Your task to perform on an android device: Clear the cart on bestbuy.com. Search for "razer kraken" on bestbuy.com, select the first entry, add it to the cart, then select checkout. Image 0: 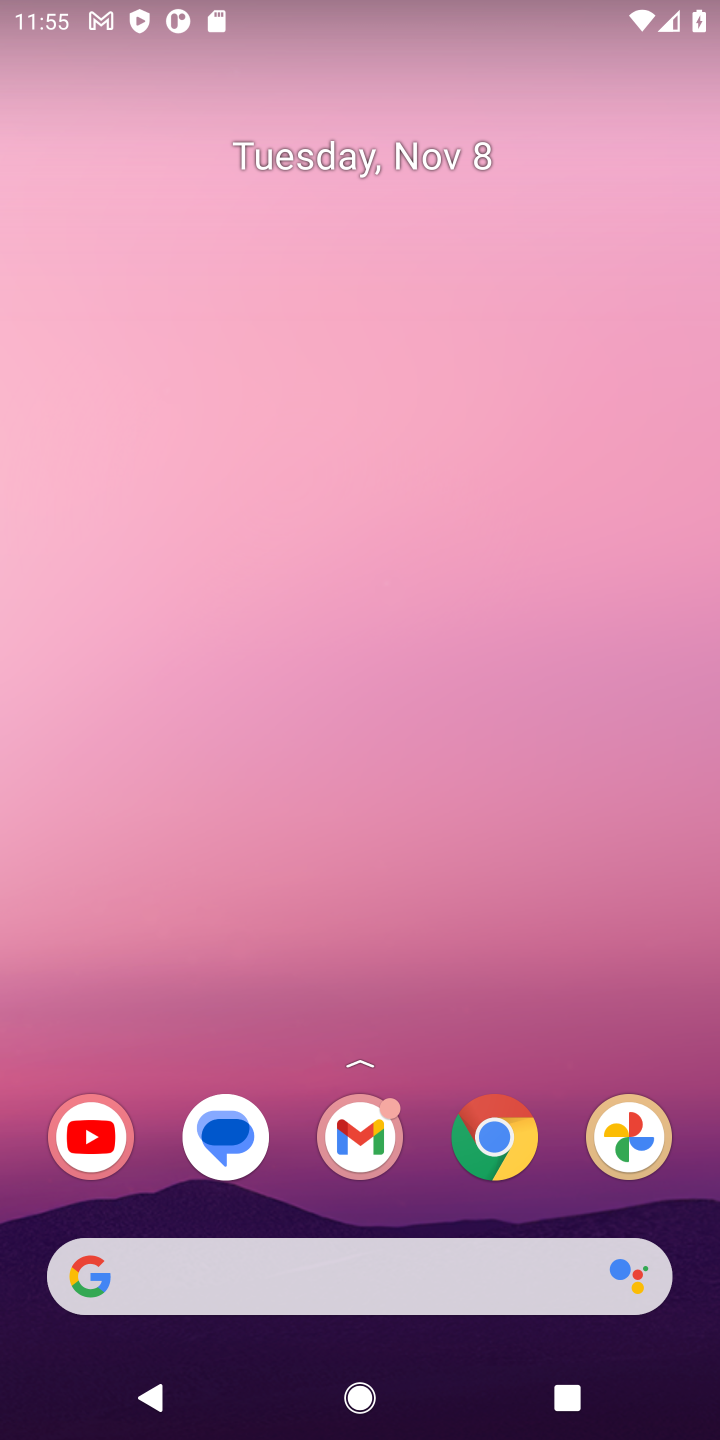
Step 0: click (494, 1139)
Your task to perform on an android device: Clear the cart on bestbuy.com. Search for "razer kraken" on bestbuy.com, select the first entry, add it to the cart, then select checkout. Image 1: 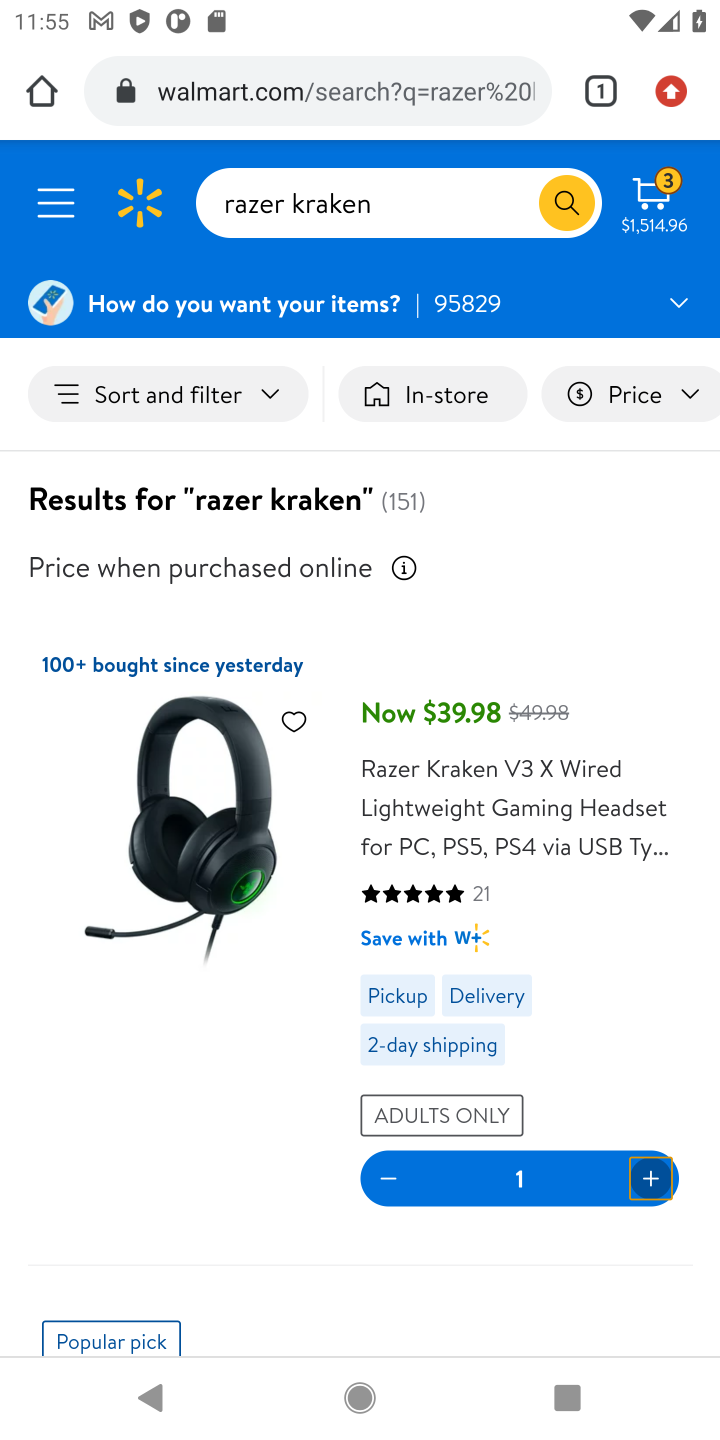
Step 1: click (393, 86)
Your task to perform on an android device: Clear the cart on bestbuy.com. Search for "razer kraken" on bestbuy.com, select the first entry, add it to the cart, then select checkout. Image 2: 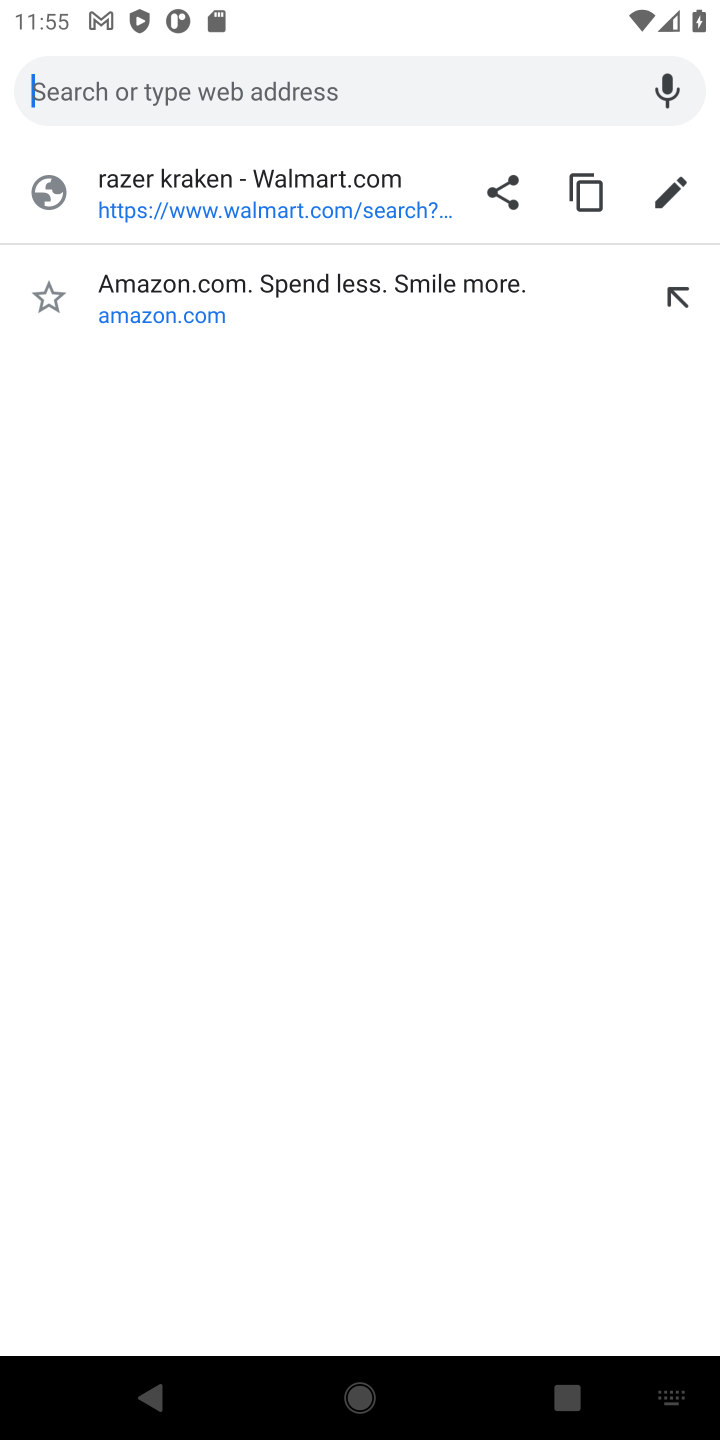
Step 2: type "bestbuy.com"
Your task to perform on an android device: Clear the cart on bestbuy.com. Search for "razer kraken" on bestbuy.com, select the first entry, add it to the cart, then select checkout. Image 3: 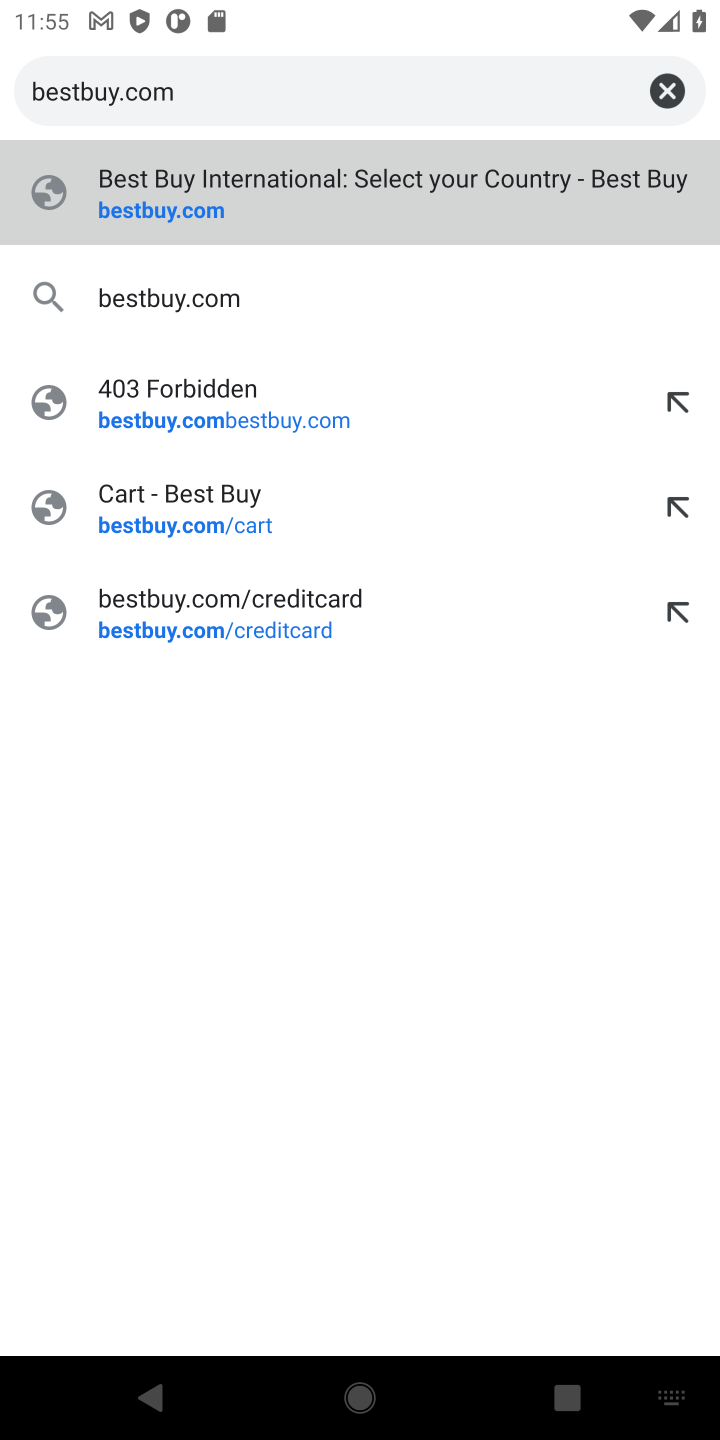
Step 3: click (220, 311)
Your task to perform on an android device: Clear the cart on bestbuy.com. Search for "razer kraken" on bestbuy.com, select the first entry, add it to the cart, then select checkout. Image 4: 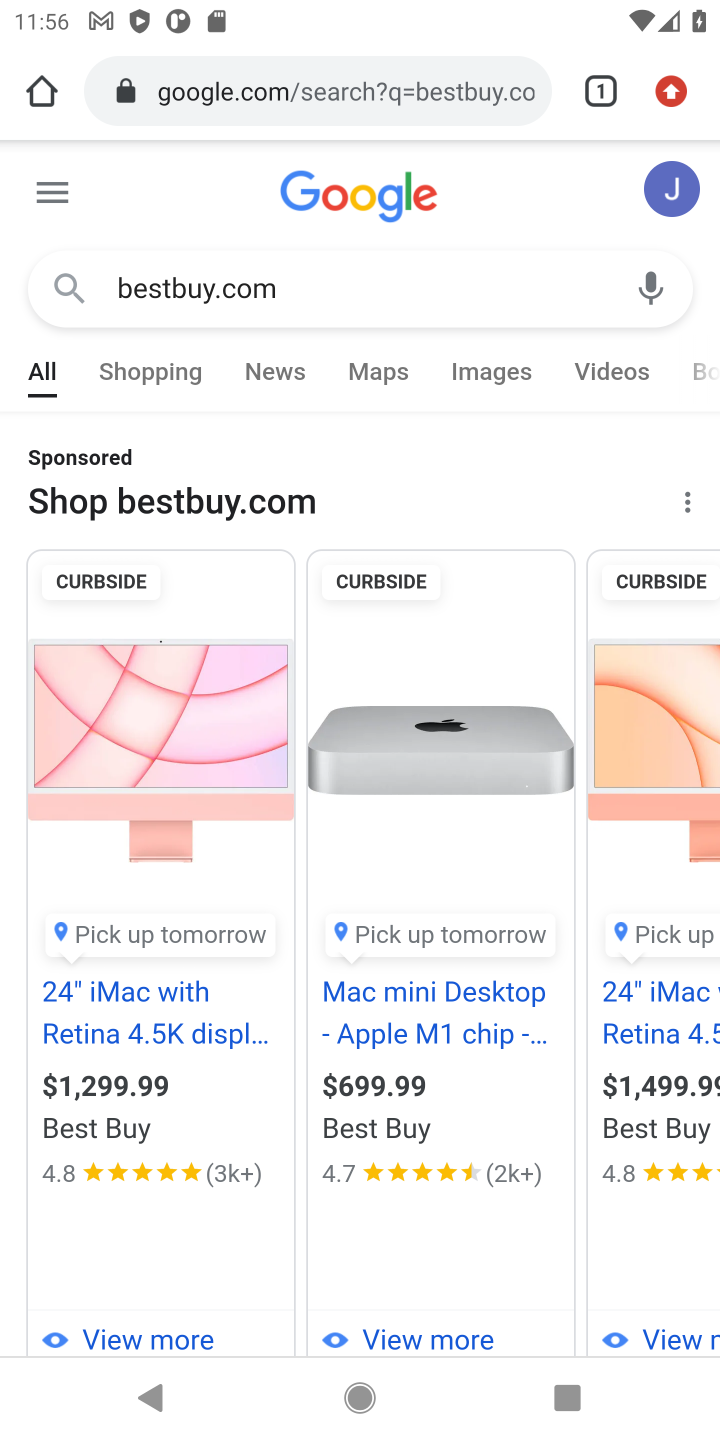
Step 4: drag from (412, 1138) to (527, 311)
Your task to perform on an android device: Clear the cart on bestbuy.com. Search for "razer kraken" on bestbuy.com, select the first entry, add it to the cart, then select checkout. Image 5: 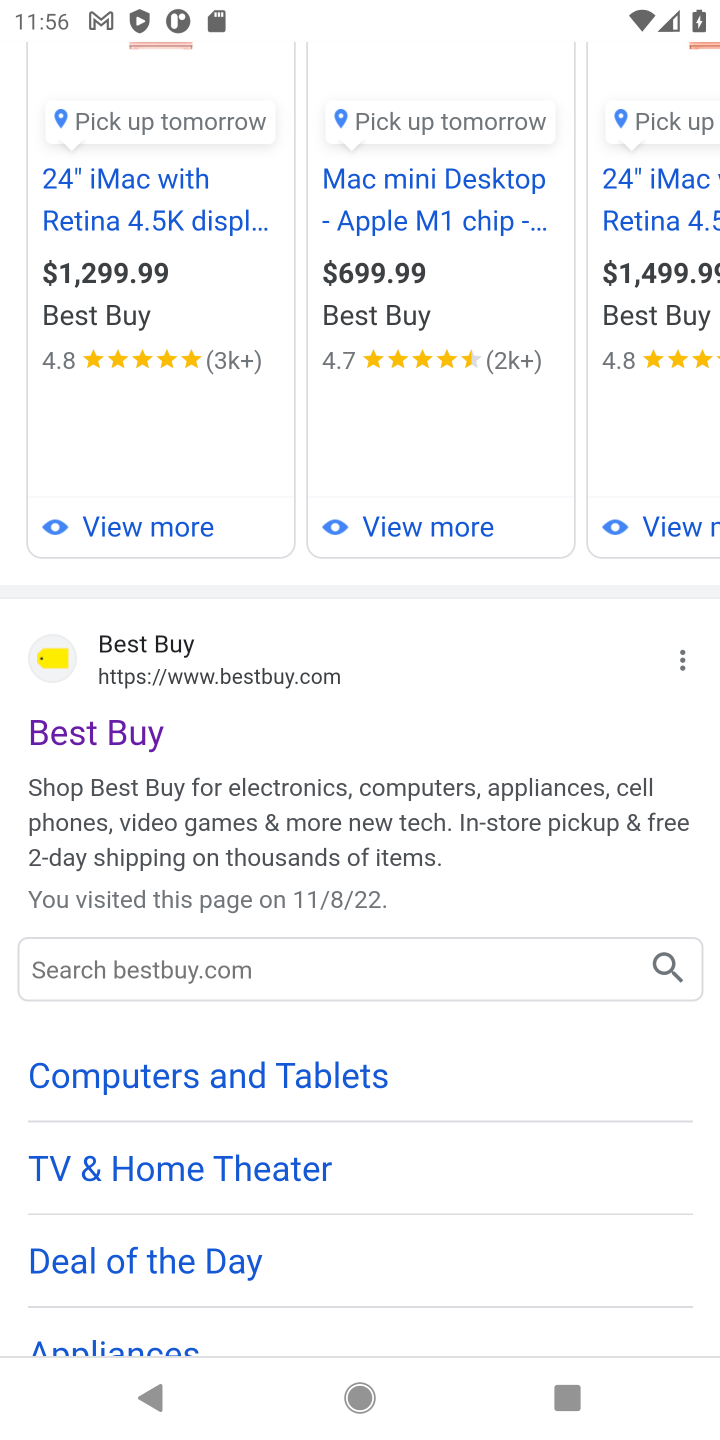
Step 5: click (210, 691)
Your task to perform on an android device: Clear the cart on bestbuy.com. Search for "razer kraken" on bestbuy.com, select the first entry, add it to the cart, then select checkout. Image 6: 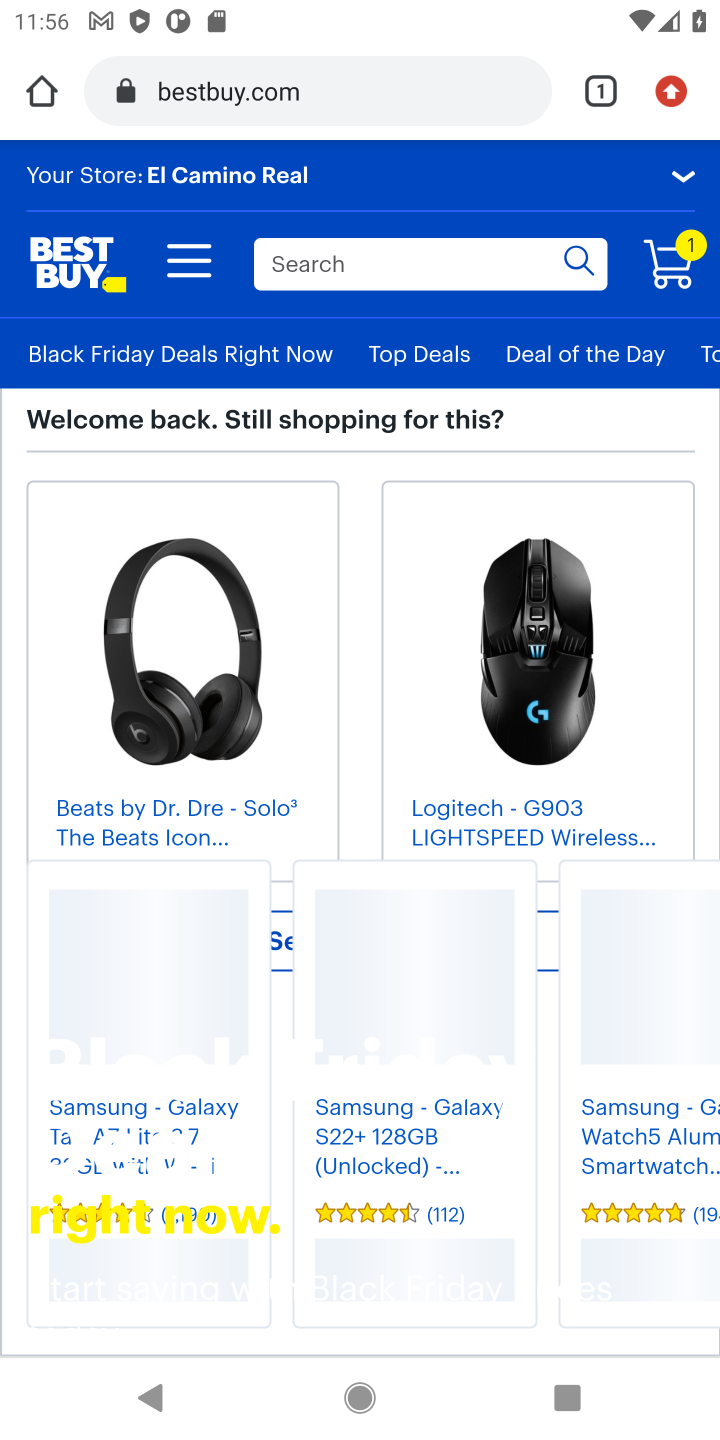
Step 6: click (691, 255)
Your task to perform on an android device: Clear the cart on bestbuy.com. Search for "razer kraken" on bestbuy.com, select the first entry, add it to the cart, then select checkout. Image 7: 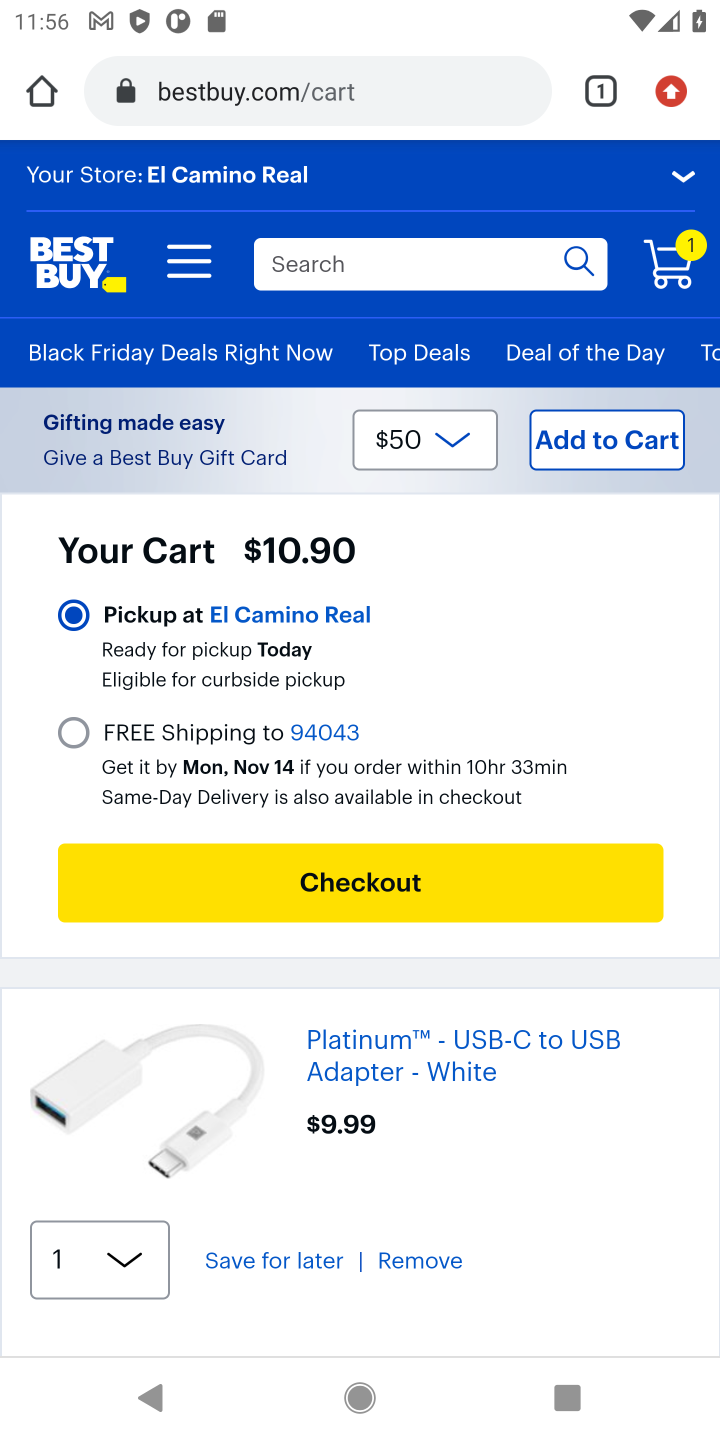
Step 7: click (398, 1261)
Your task to perform on an android device: Clear the cart on bestbuy.com. Search for "razer kraken" on bestbuy.com, select the first entry, add it to the cart, then select checkout. Image 8: 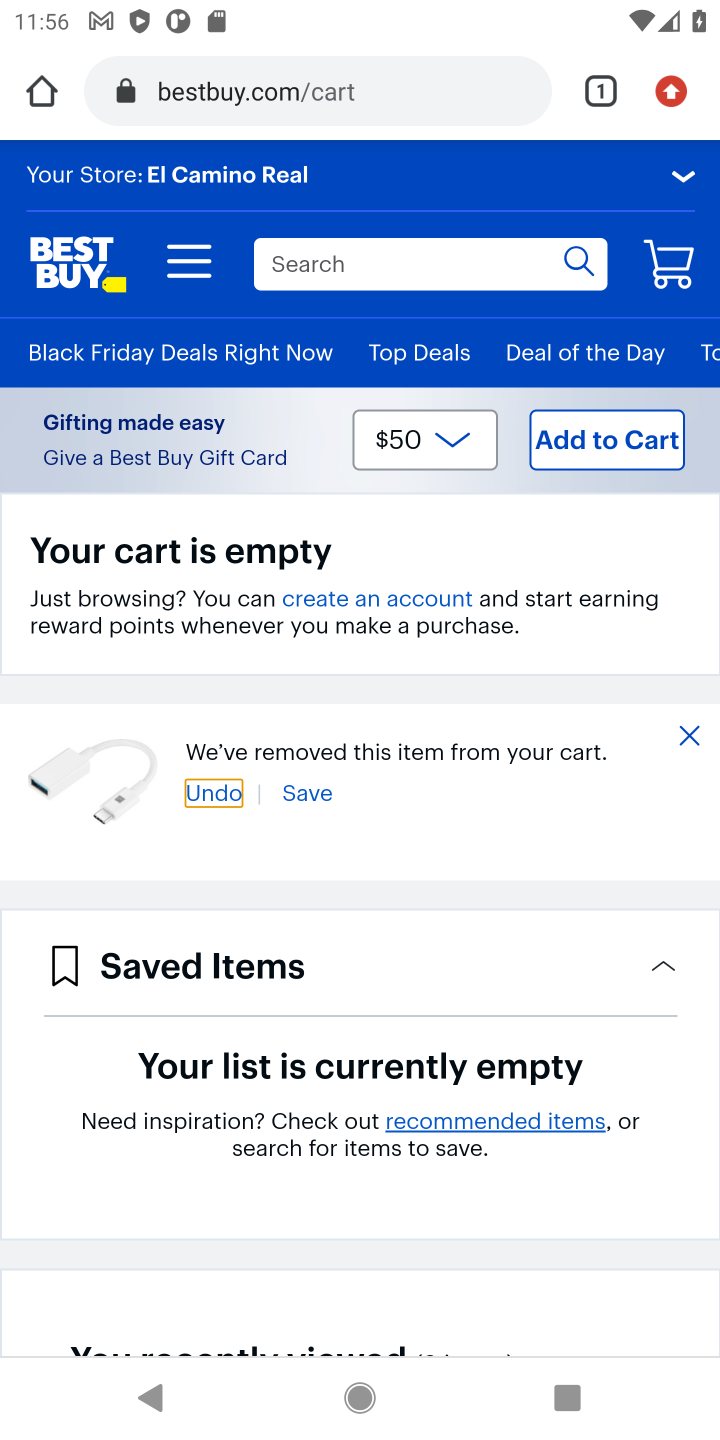
Step 8: click (432, 264)
Your task to perform on an android device: Clear the cart on bestbuy.com. Search for "razer kraken" on bestbuy.com, select the first entry, add it to the cart, then select checkout. Image 9: 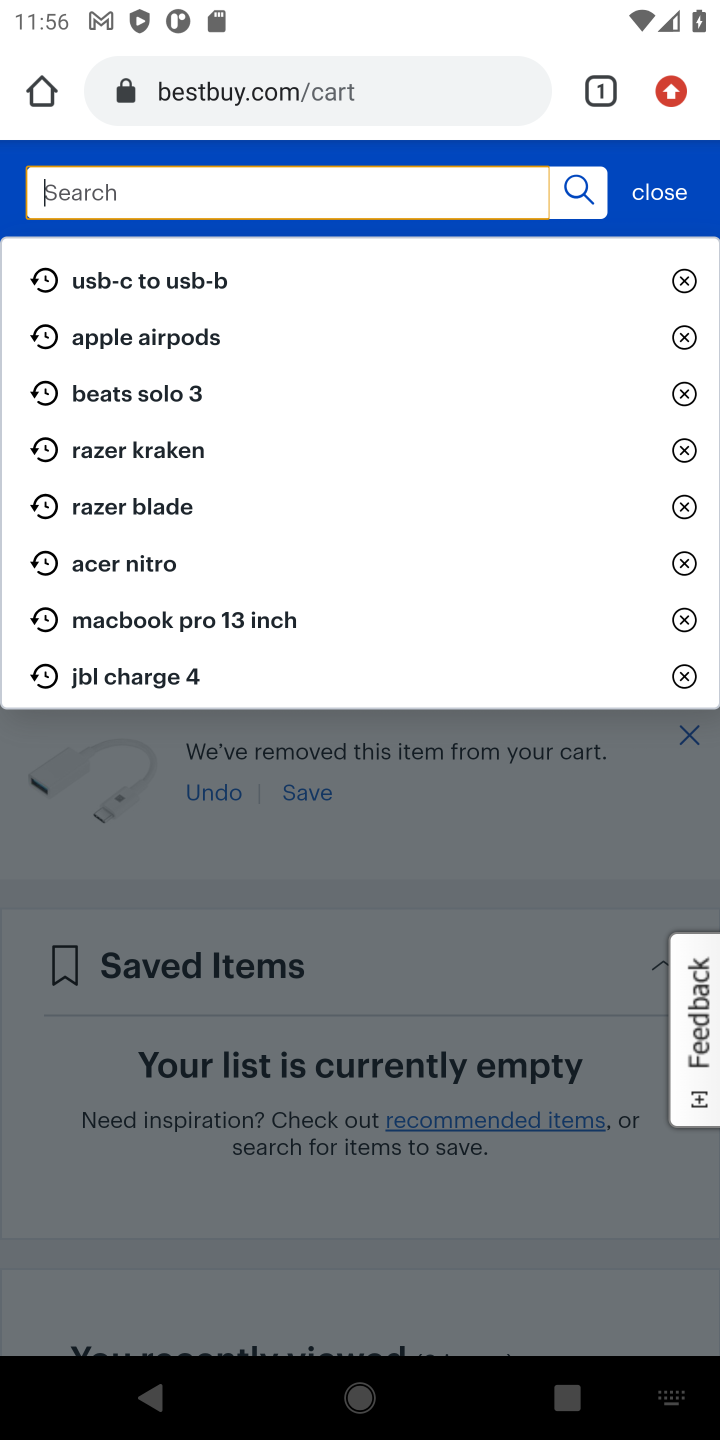
Step 9: type "razer krakan"
Your task to perform on an android device: Clear the cart on bestbuy.com. Search for "razer kraken" on bestbuy.com, select the first entry, add it to the cart, then select checkout. Image 10: 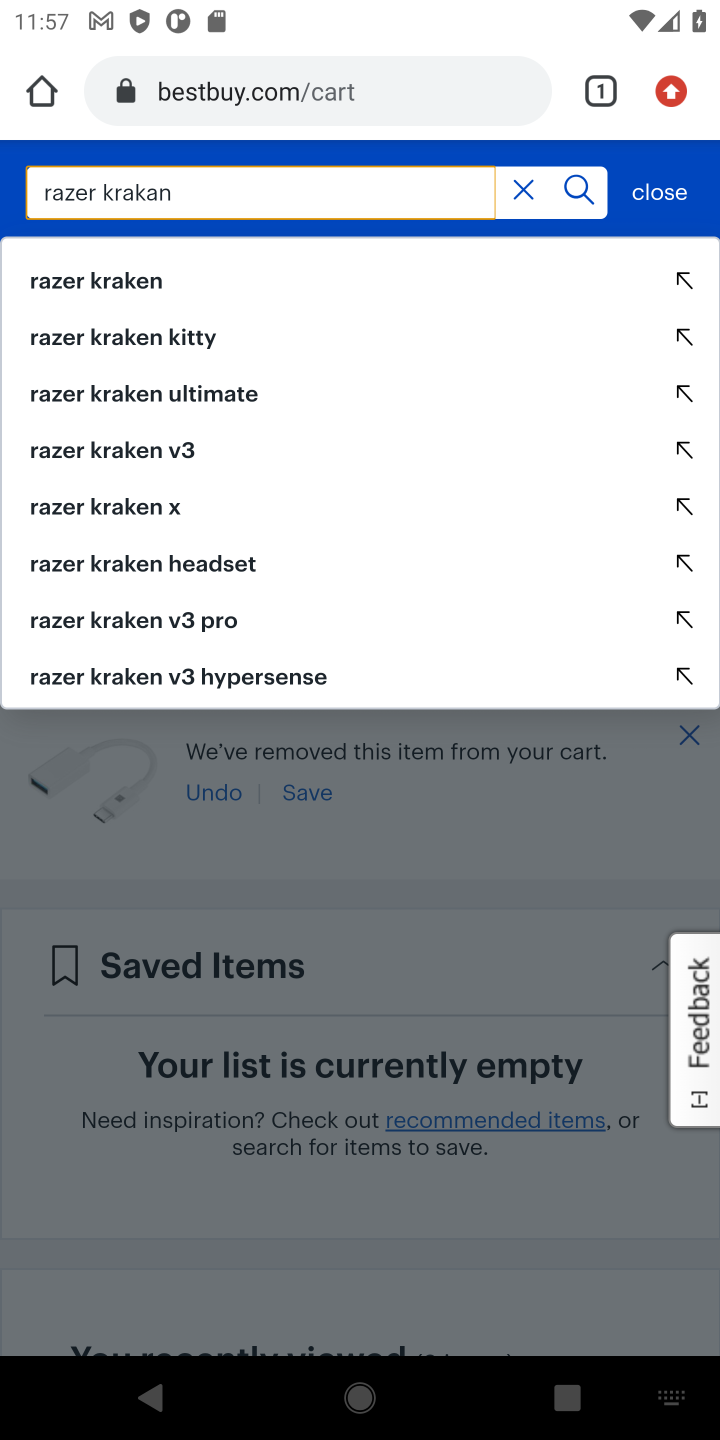
Step 10: click (129, 281)
Your task to perform on an android device: Clear the cart on bestbuy.com. Search for "razer kraken" on bestbuy.com, select the first entry, add it to the cart, then select checkout. Image 11: 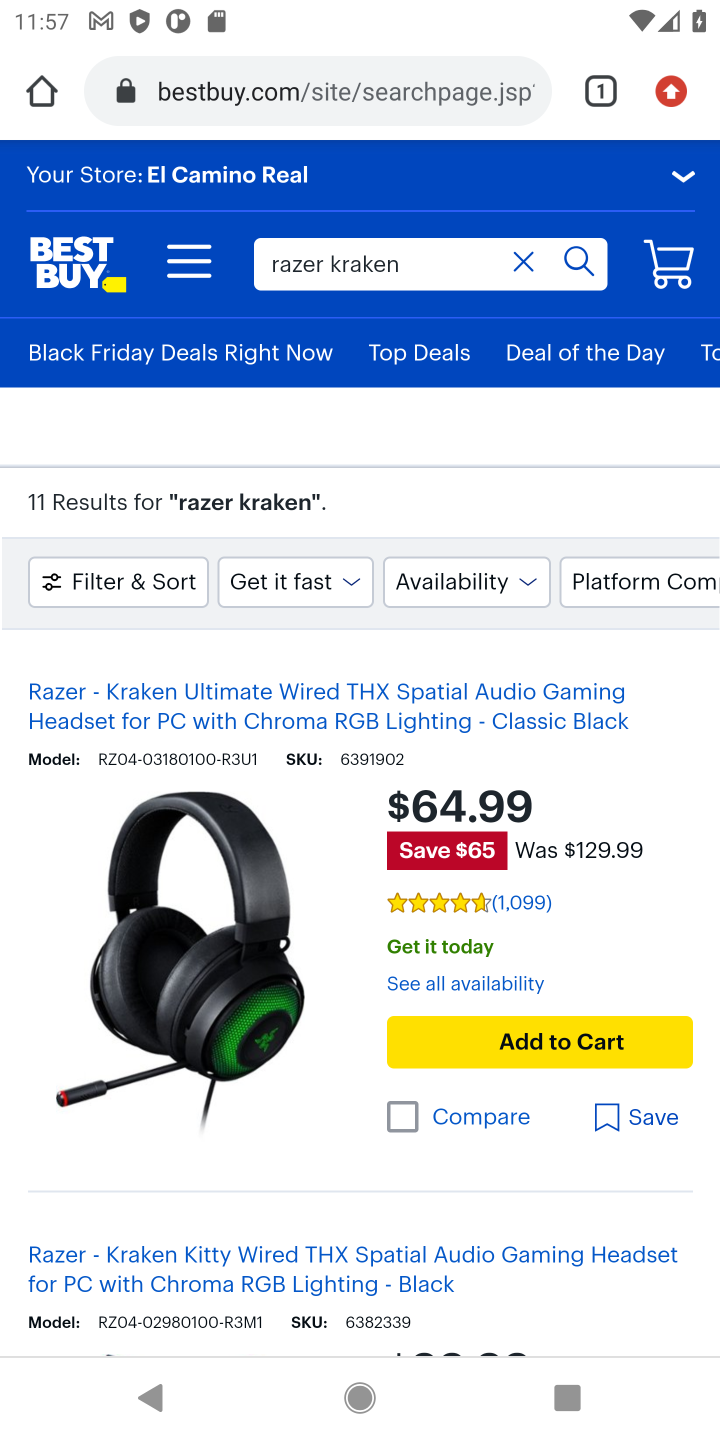
Step 11: click (546, 1049)
Your task to perform on an android device: Clear the cart on bestbuy.com. Search for "razer kraken" on bestbuy.com, select the first entry, add it to the cart, then select checkout. Image 12: 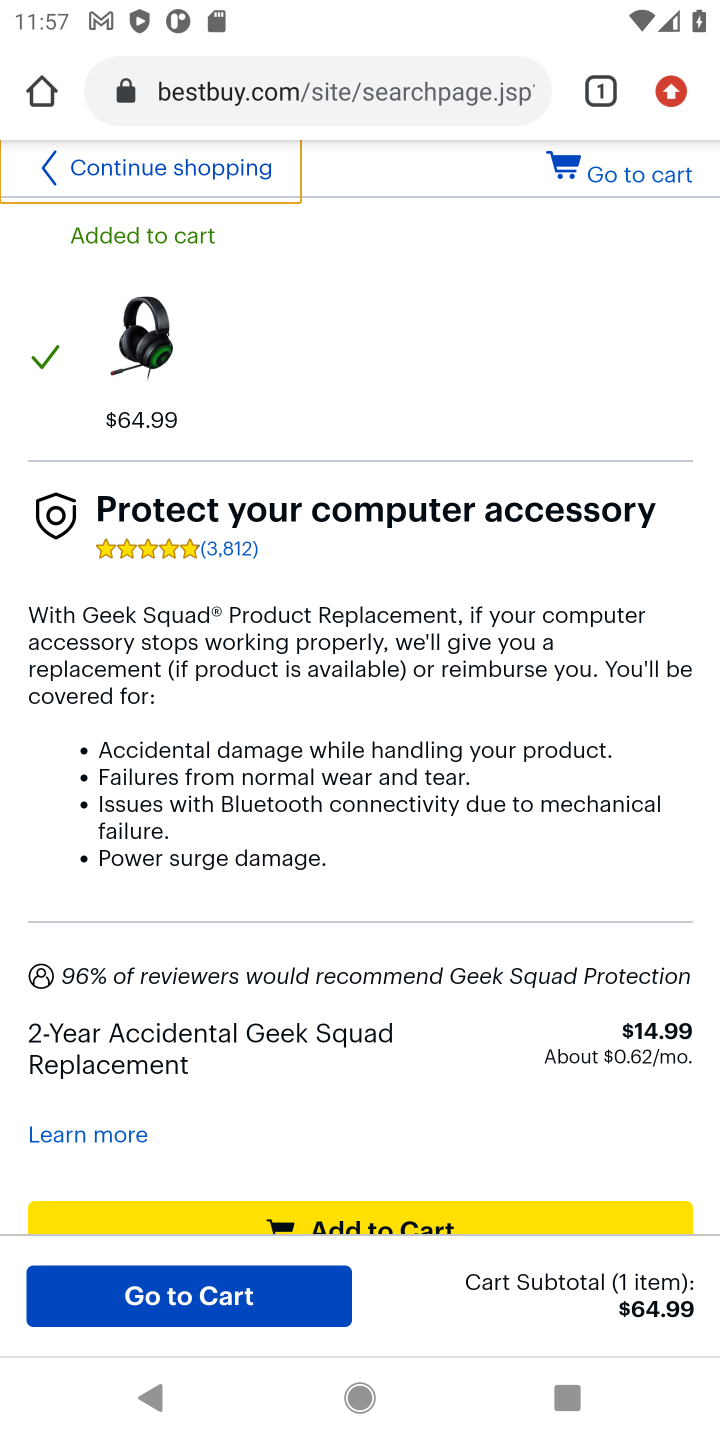
Step 12: click (156, 1293)
Your task to perform on an android device: Clear the cart on bestbuy.com. Search for "razer kraken" on bestbuy.com, select the first entry, add it to the cart, then select checkout. Image 13: 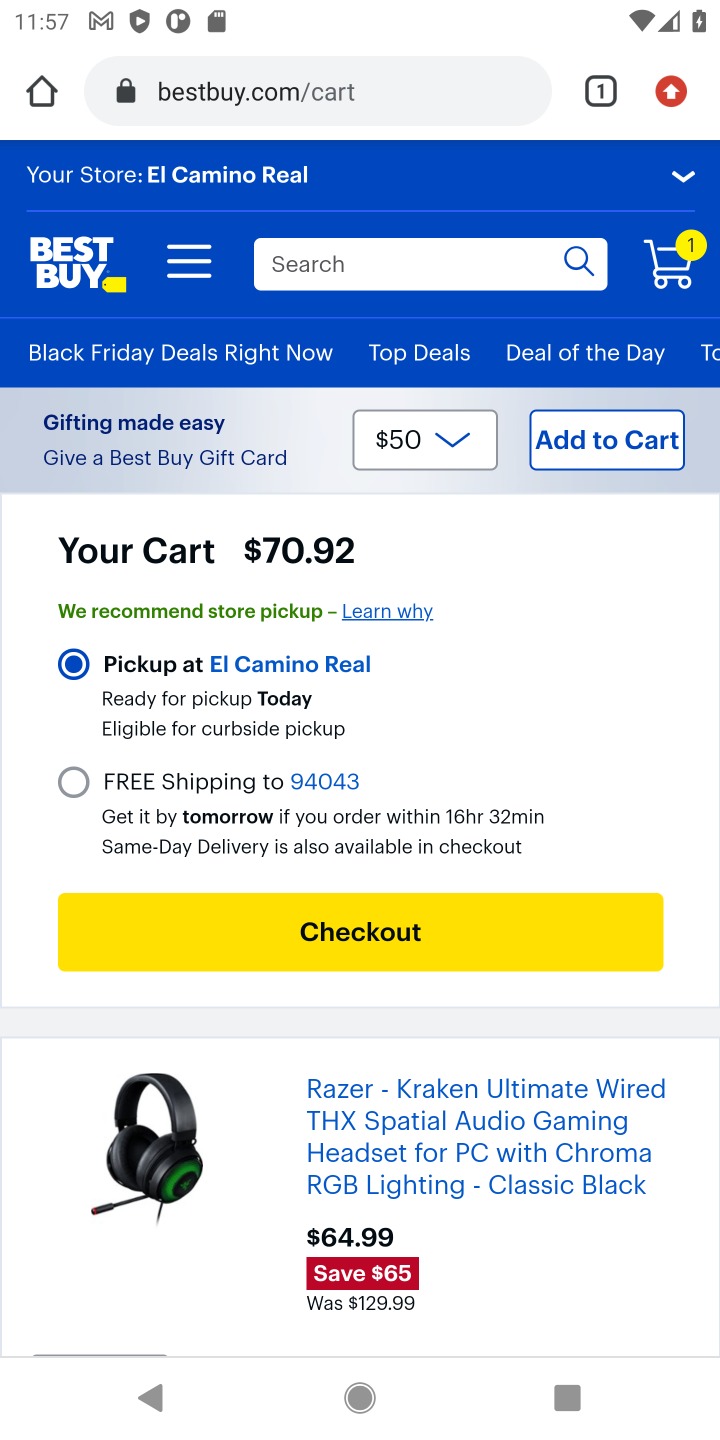
Step 13: click (373, 926)
Your task to perform on an android device: Clear the cart on bestbuy.com. Search for "razer kraken" on bestbuy.com, select the first entry, add it to the cart, then select checkout. Image 14: 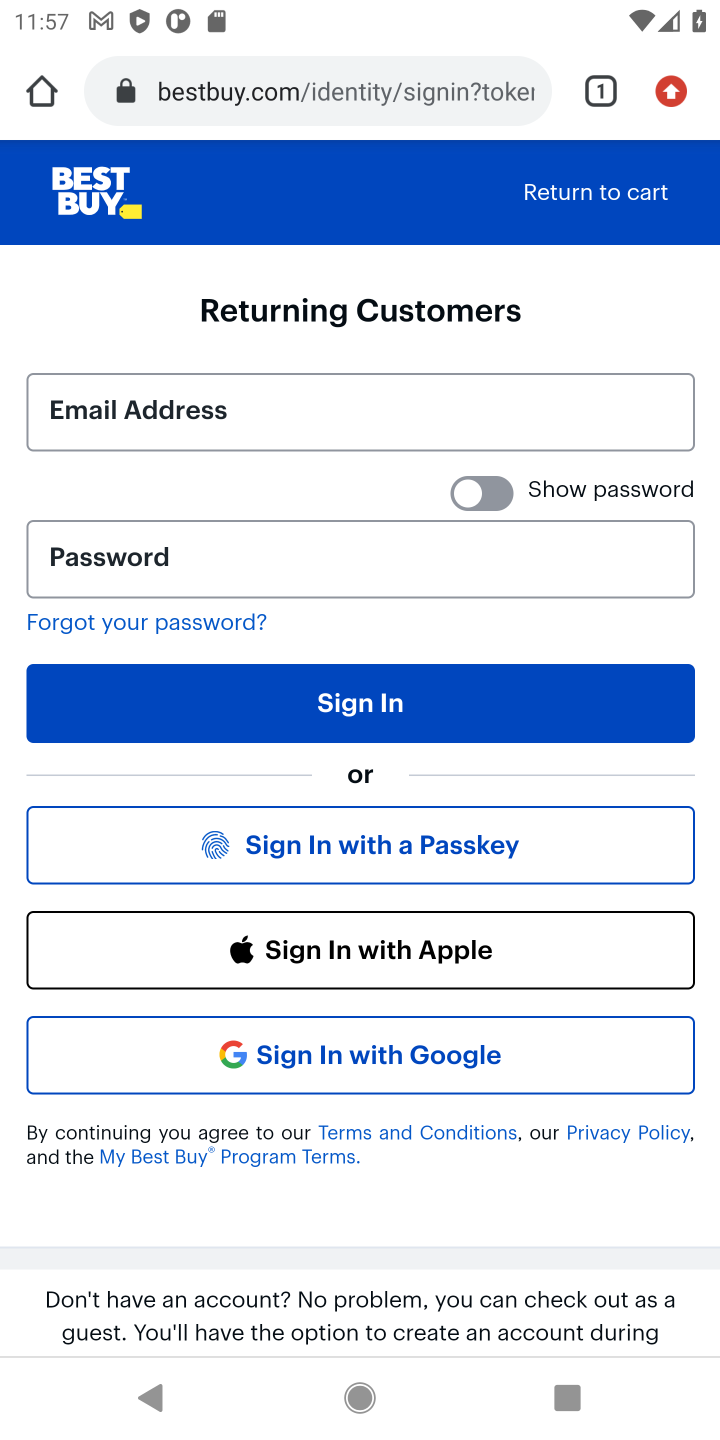
Step 14: task complete